Your task to perform on an android device: add a contact Image 0: 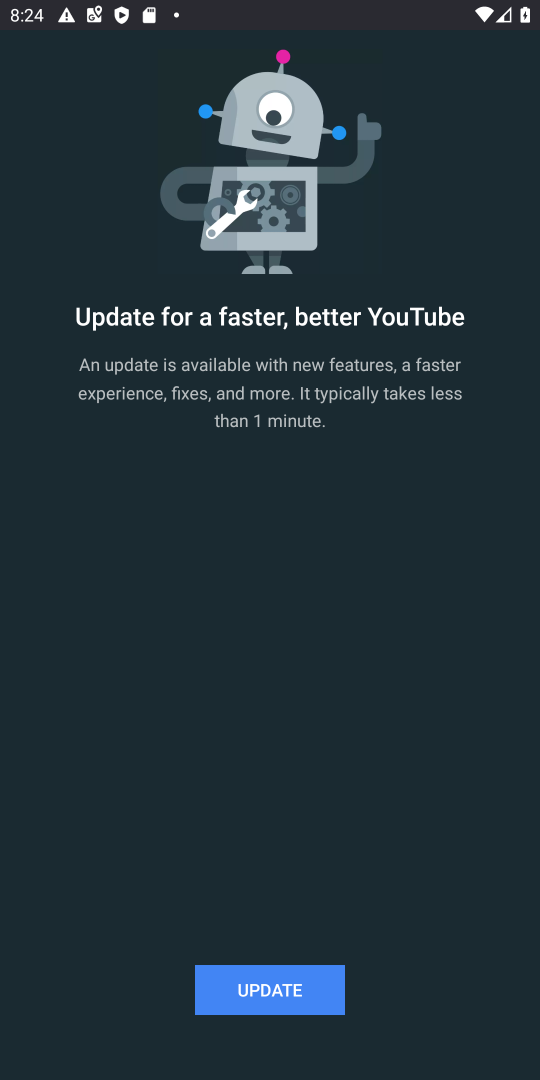
Step 0: press home button
Your task to perform on an android device: add a contact Image 1: 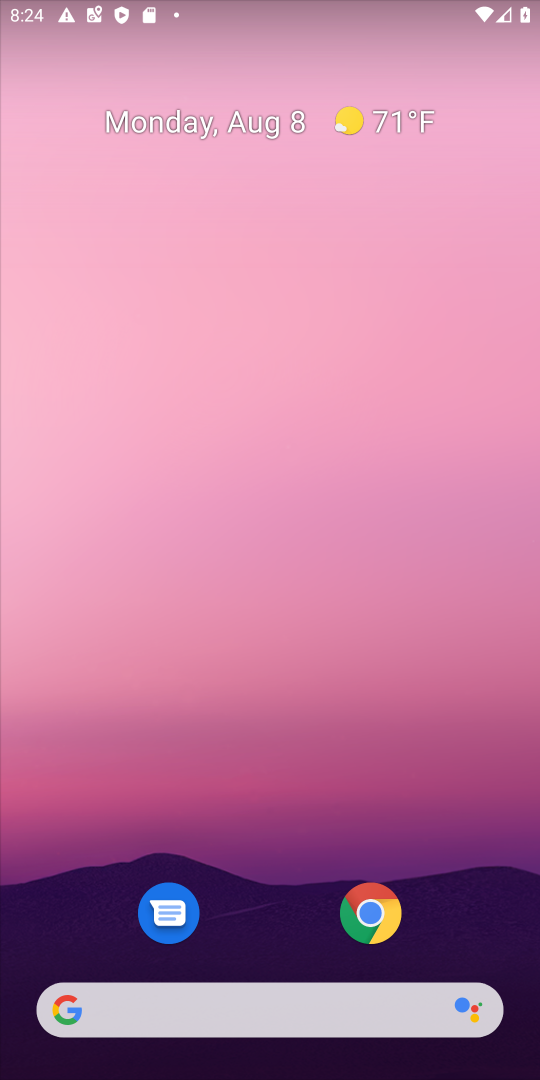
Step 1: drag from (301, 1025) to (416, 286)
Your task to perform on an android device: add a contact Image 2: 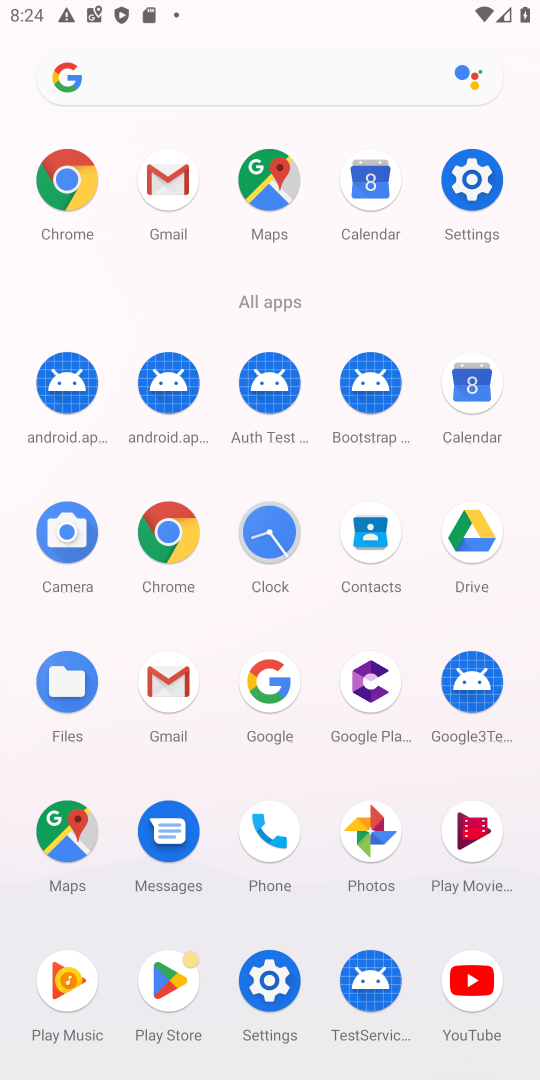
Step 2: click (372, 536)
Your task to perform on an android device: add a contact Image 3: 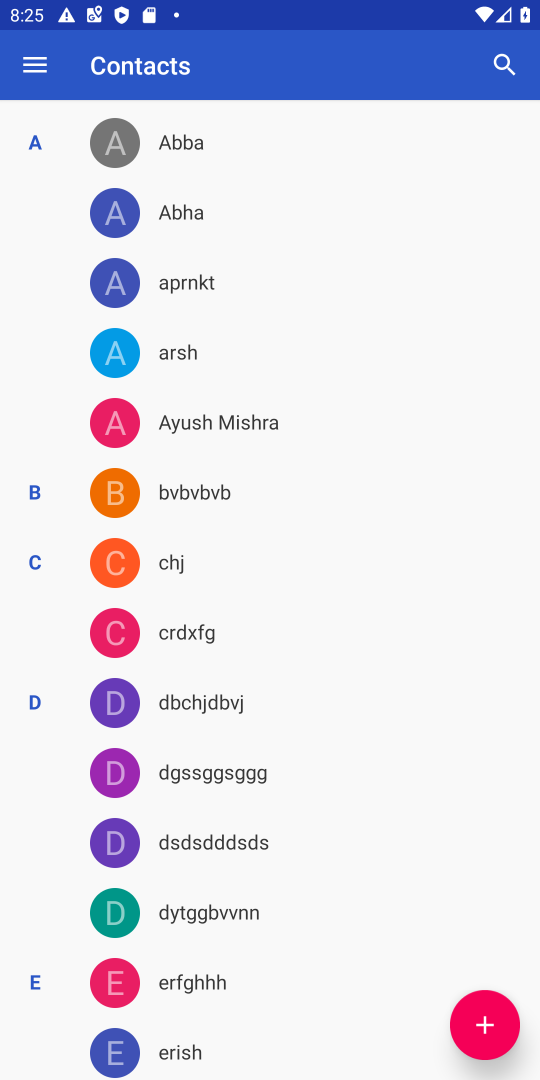
Step 3: click (482, 1015)
Your task to perform on an android device: add a contact Image 4: 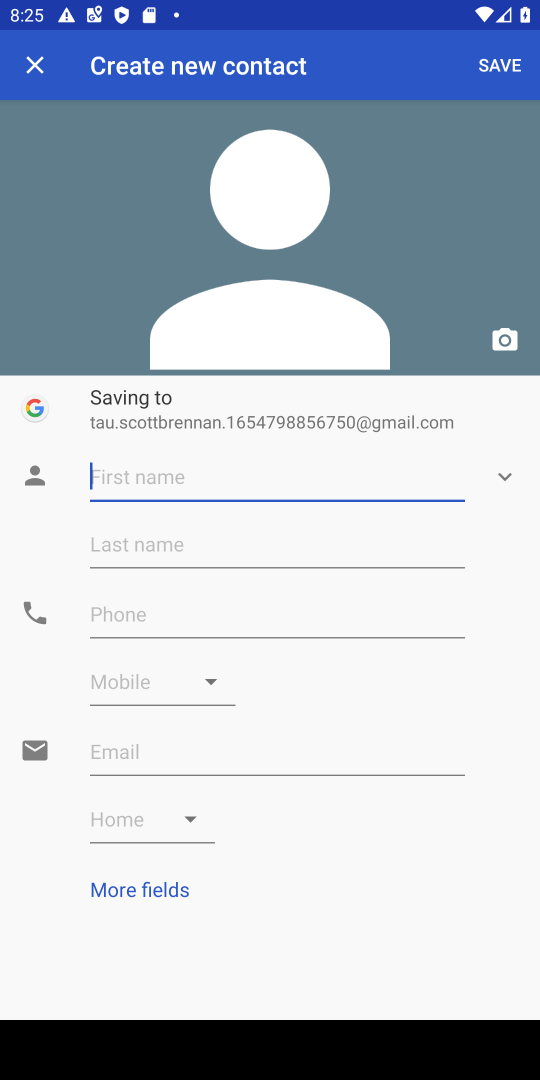
Step 4: type "Rozar"
Your task to perform on an android device: add a contact Image 5: 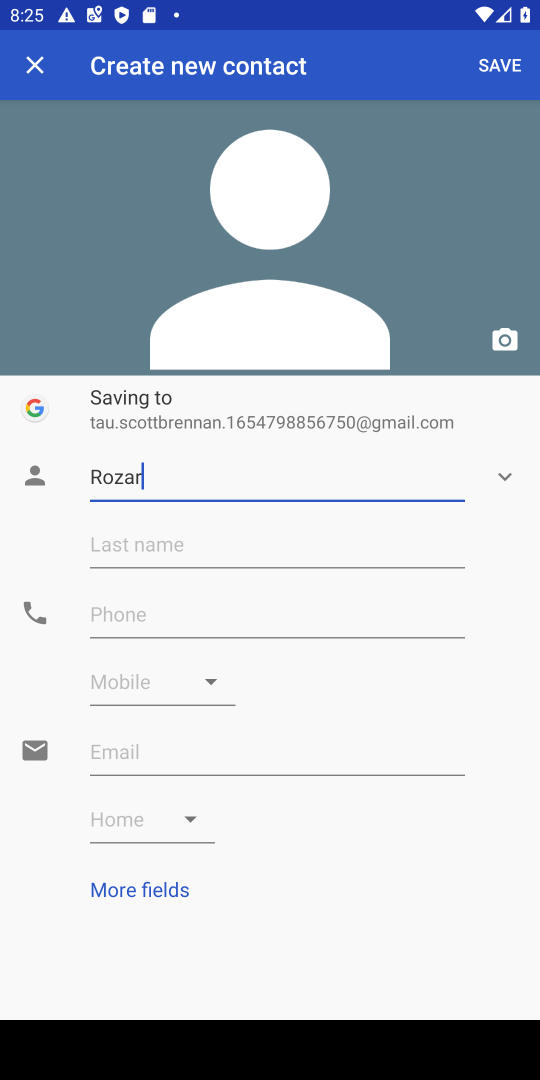
Step 5: click (211, 554)
Your task to perform on an android device: add a contact Image 6: 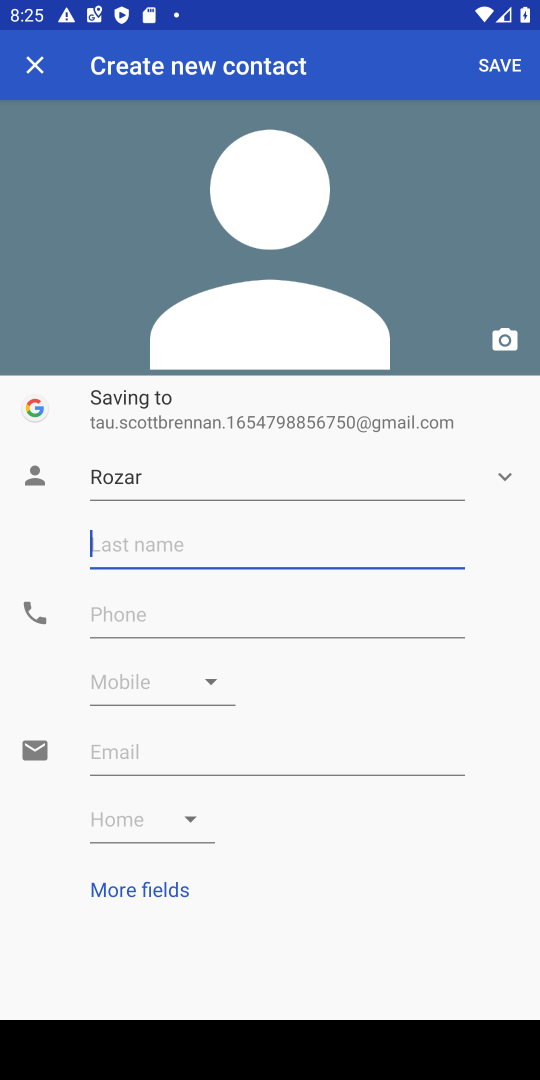
Step 6: type "Toss"
Your task to perform on an android device: add a contact Image 7: 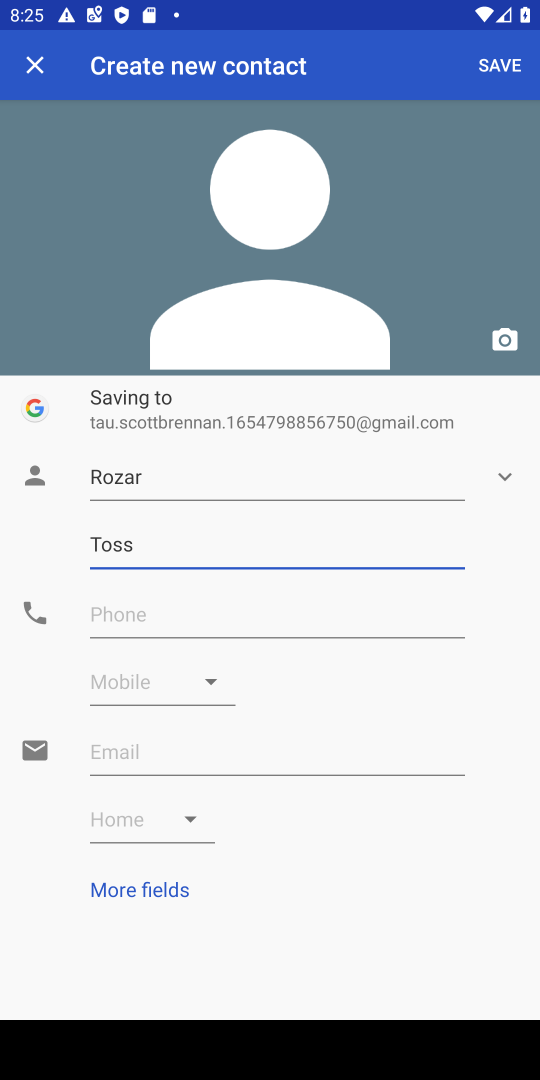
Step 7: click (303, 615)
Your task to perform on an android device: add a contact Image 8: 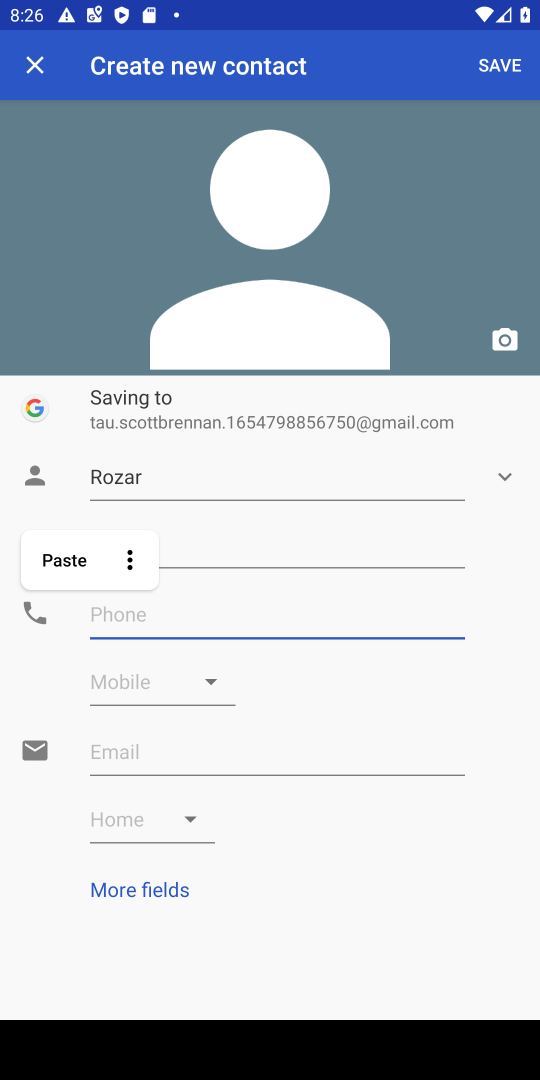
Step 8: type "0987654321"
Your task to perform on an android device: add a contact Image 9: 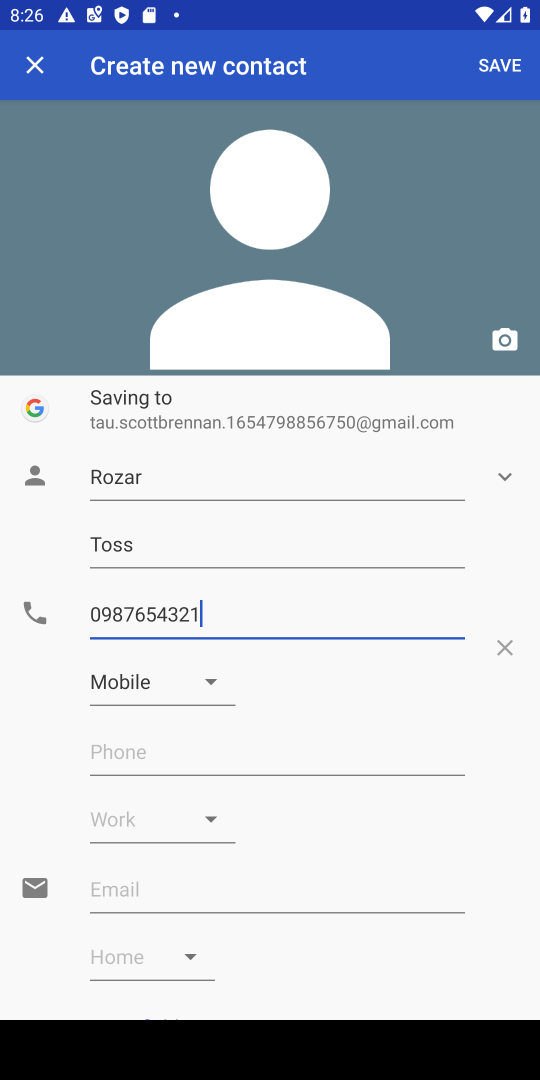
Step 9: click (496, 60)
Your task to perform on an android device: add a contact Image 10: 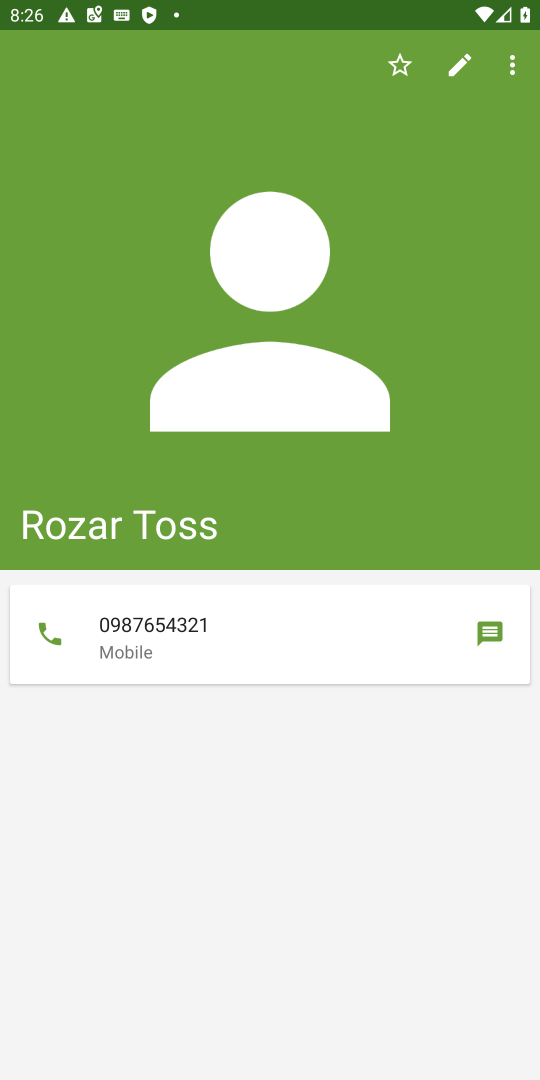
Step 10: task complete